Your task to perform on an android device: What's the weather? Image 0: 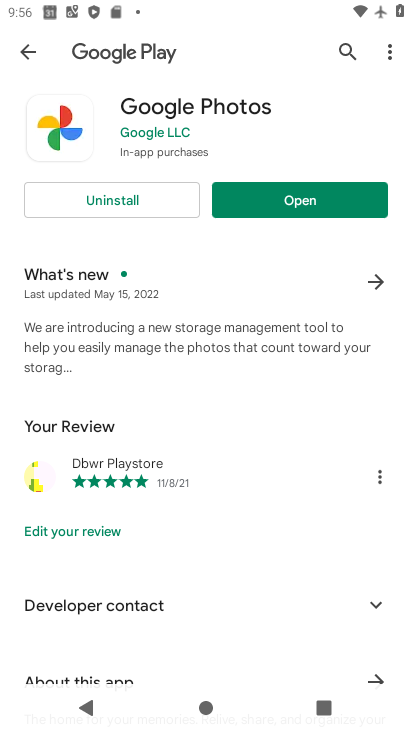
Step 0: press home button
Your task to perform on an android device: What's the weather? Image 1: 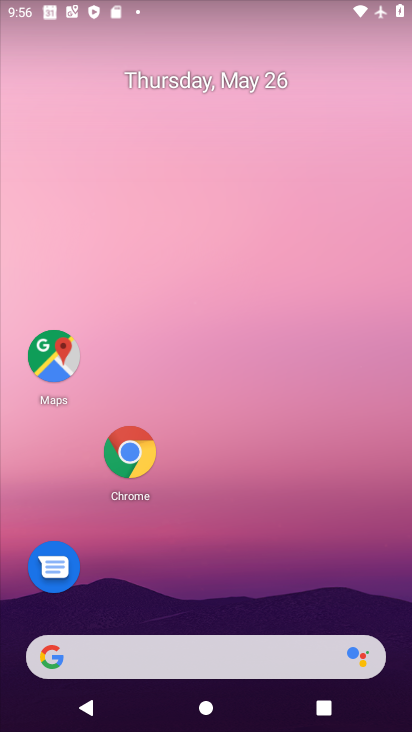
Step 1: click (57, 656)
Your task to perform on an android device: What's the weather? Image 2: 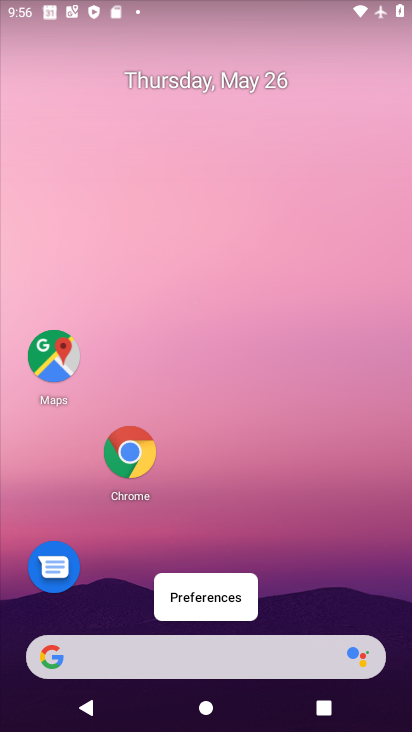
Step 2: click (56, 661)
Your task to perform on an android device: What's the weather? Image 3: 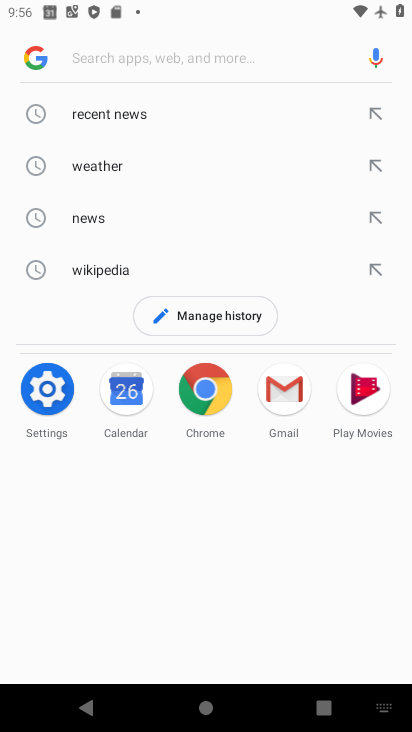
Step 3: click (98, 154)
Your task to perform on an android device: What's the weather? Image 4: 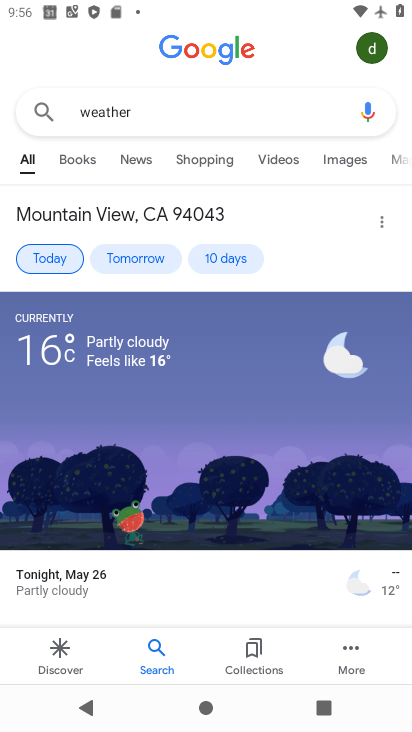
Step 4: task complete